Your task to perform on an android device: turn off airplane mode Image 0: 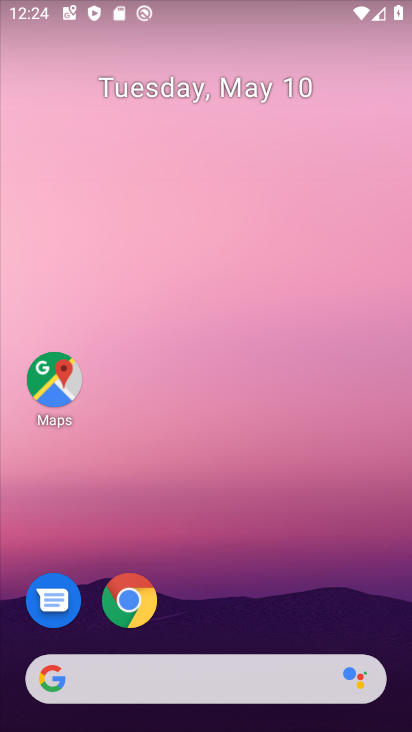
Step 0: drag from (199, 677) to (176, 92)
Your task to perform on an android device: turn off airplane mode Image 1: 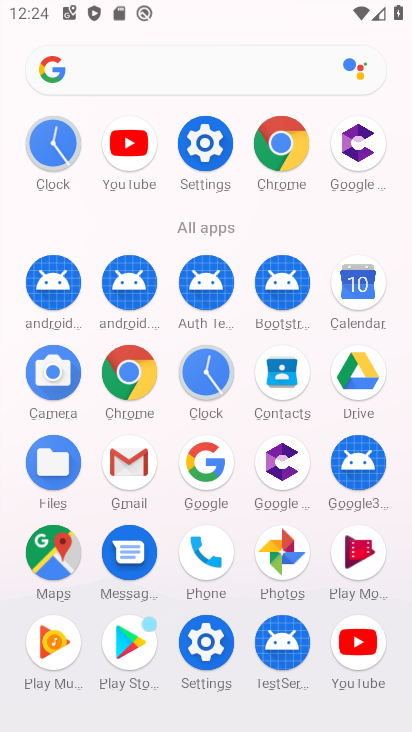
Step 1: click (205, 124)
Your task to perform on an android device: turn off airplane mode Image 2: 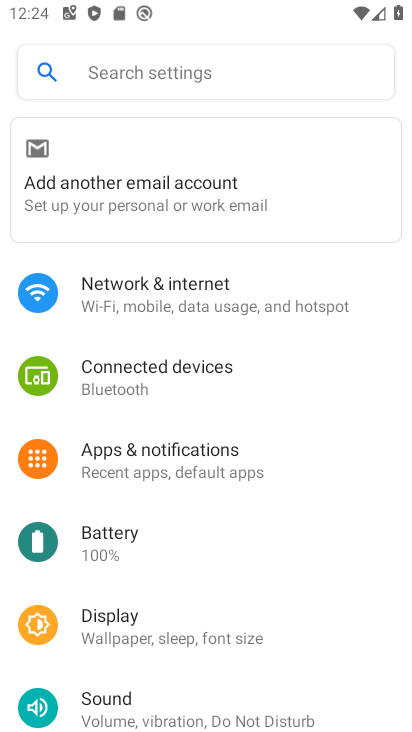
Step 2: click (151, 287)
Your task to perform on an android device: turn off airplane mode Image 3: 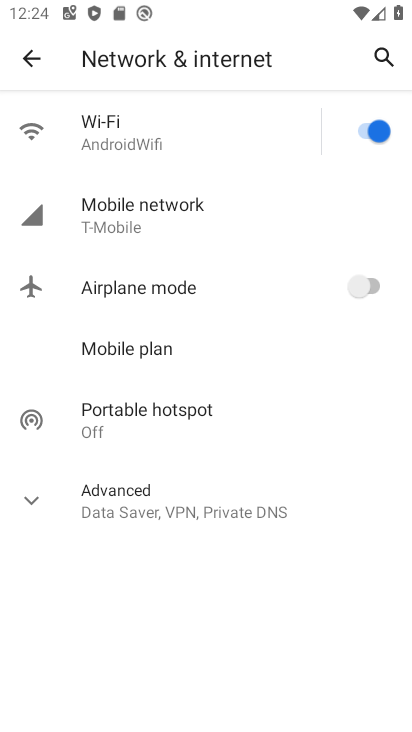
Step 3: task complete